Your task to perform on an android device: Where can I buy a nice beach hat? Image 0: 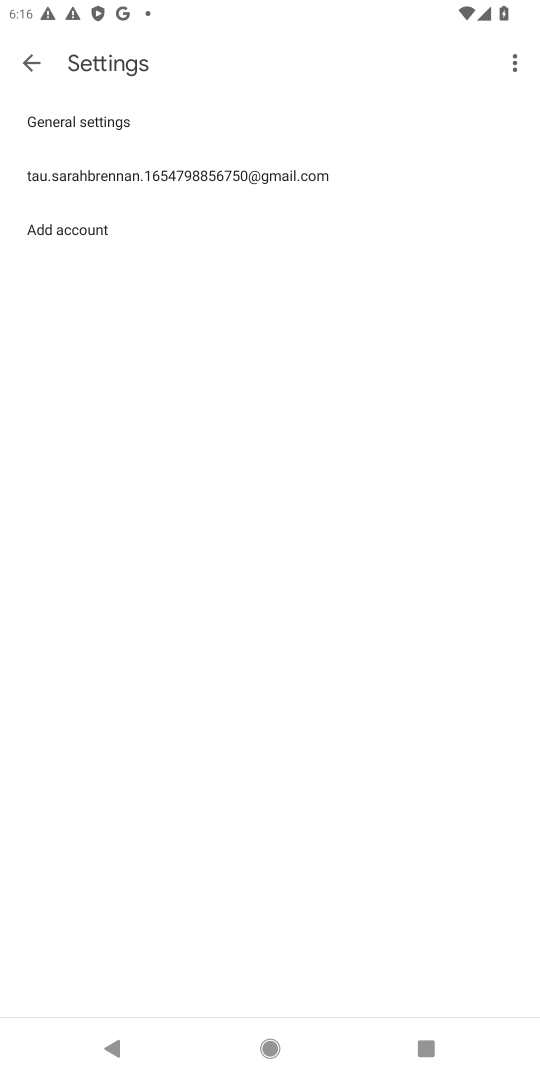
Step 0: press home button
Your task to perform on an android device: Where can I buy a nice beach hat? Image 1: 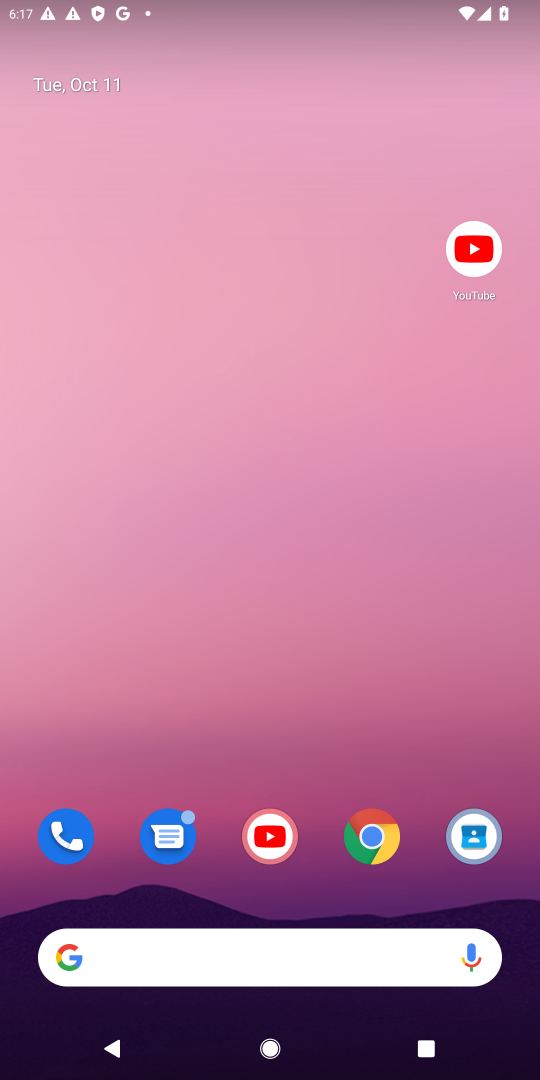
Step 1: click (372, 835)
Your task to perform on an android device: Where can I buy a nice beach hat? Image 2: 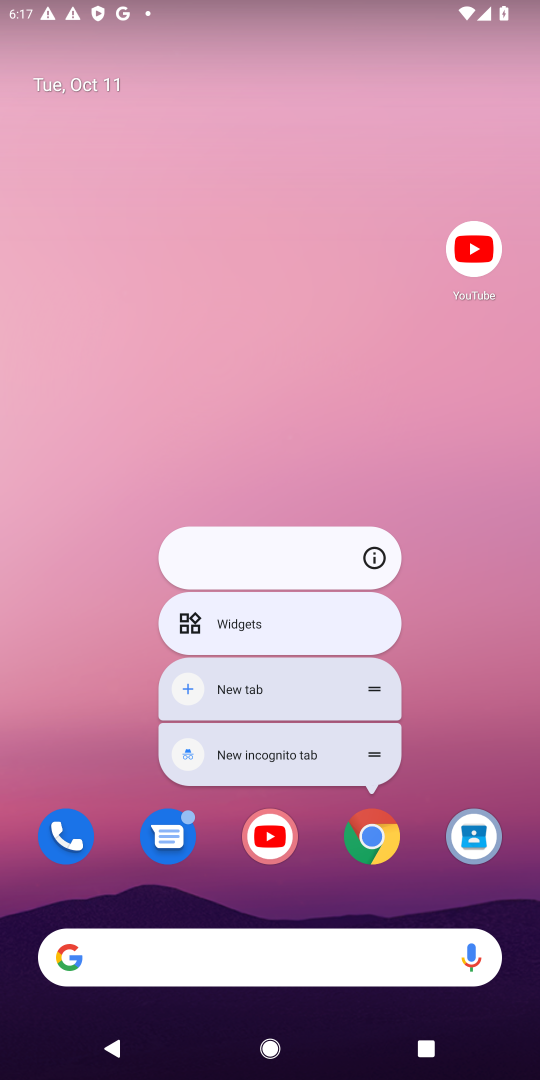
Step 2: click (372, 835)
Your task to perform on an android device: Where can I buy a nice beach hat? Image 3: 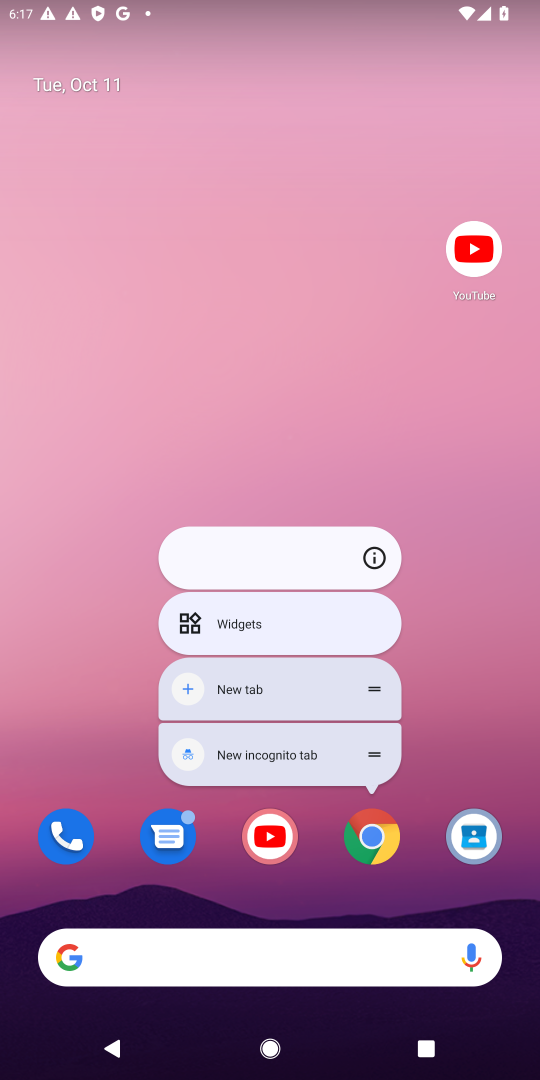
Step 3: click (371, 846)
Your task to perform on an android device: Where can I buy a nice beach hat? Image 4: 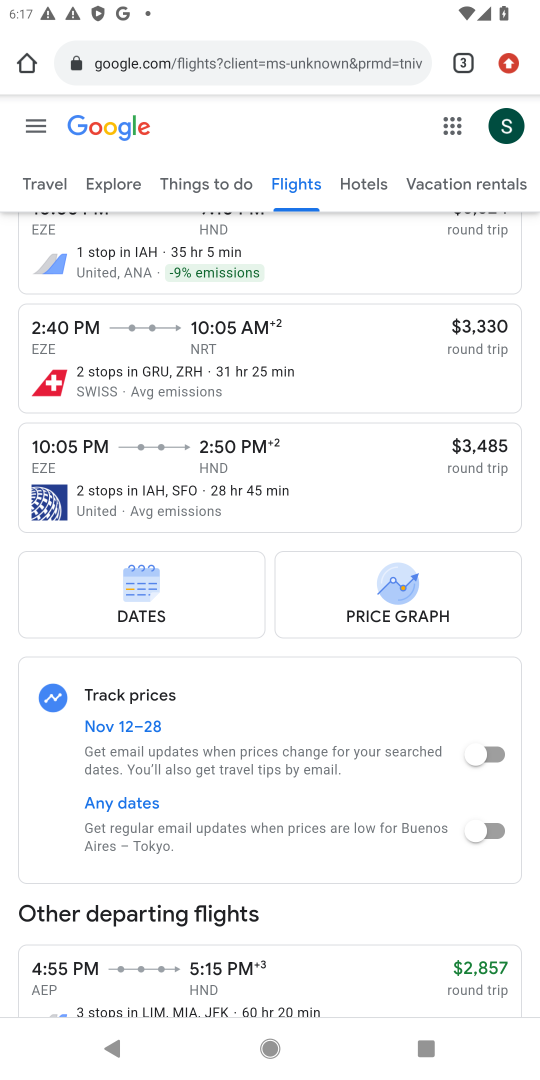
Step 4: click (389, 57)
Your task to perform on an android device: Where can I buy a nice beach hat? Image 5: 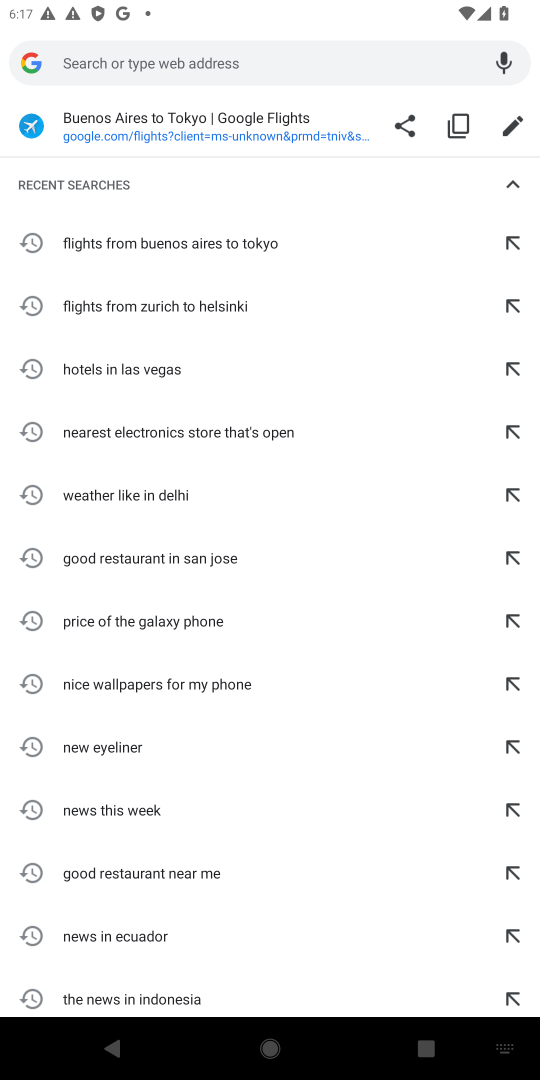
Step 5: type "Where can I buy a nice beach hat"
Your task to perform on an android device: Where can I buy a nice beach hat? Image 6: 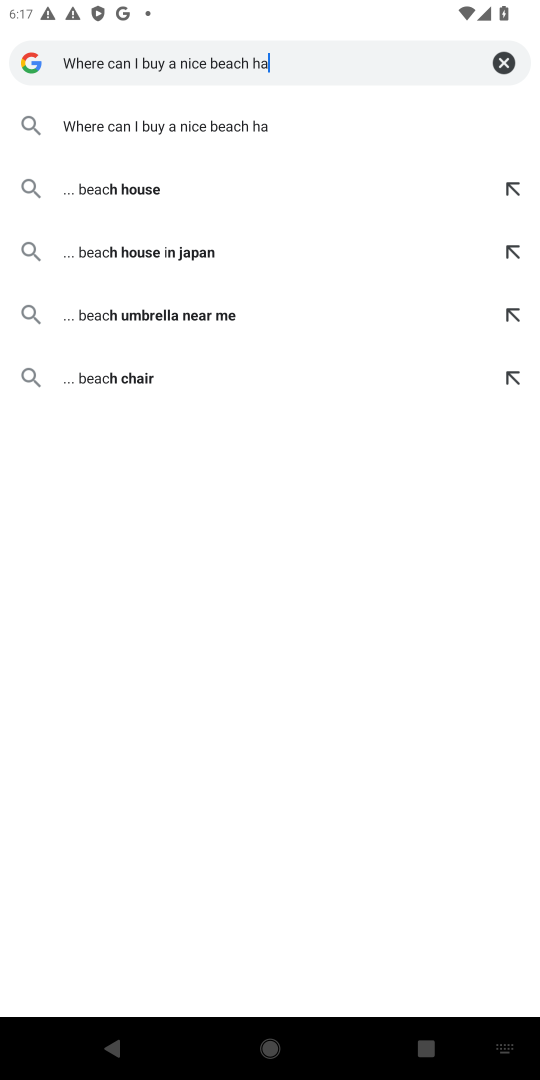
Step 6: press enter
Your task to perform on an android device: Where can I buy a nice beach hat? Image 7: 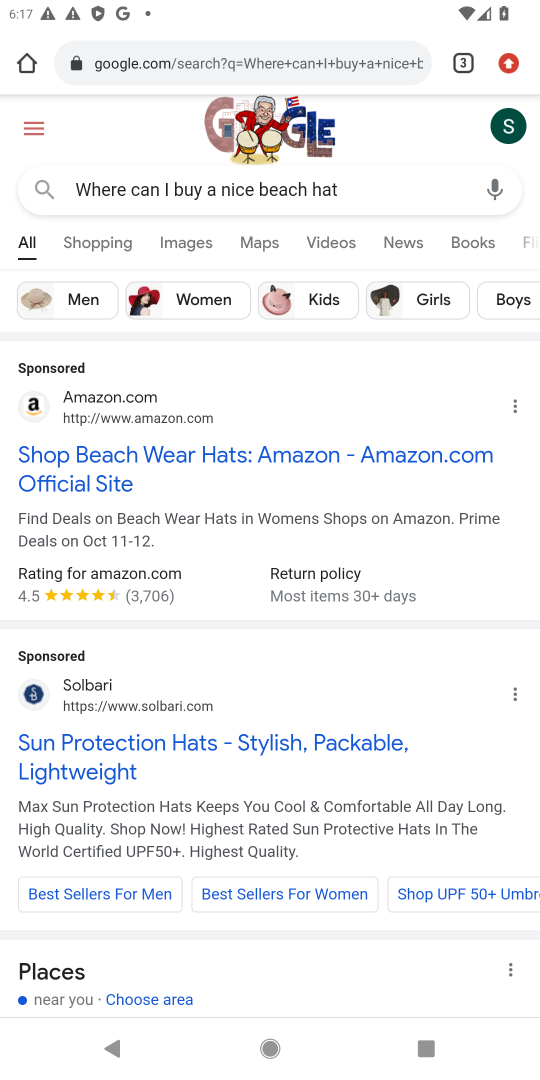
Step 7: click (253, 447)
Your task to perform on an android device: Where can I buy a nice beach hat? Image 8: 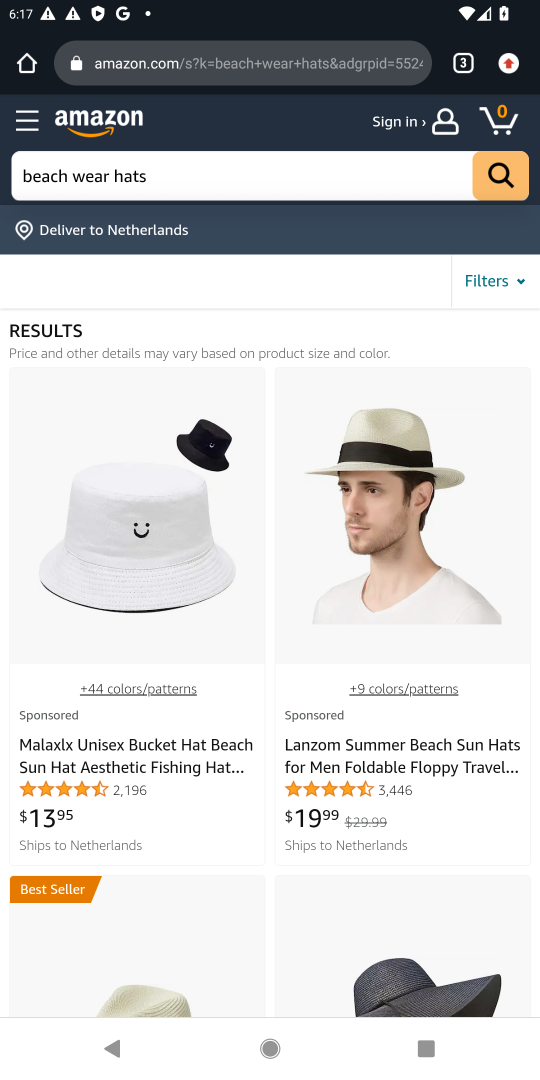
Step 8: task complete